Your task to perform on an android device: add a contact Image 0: 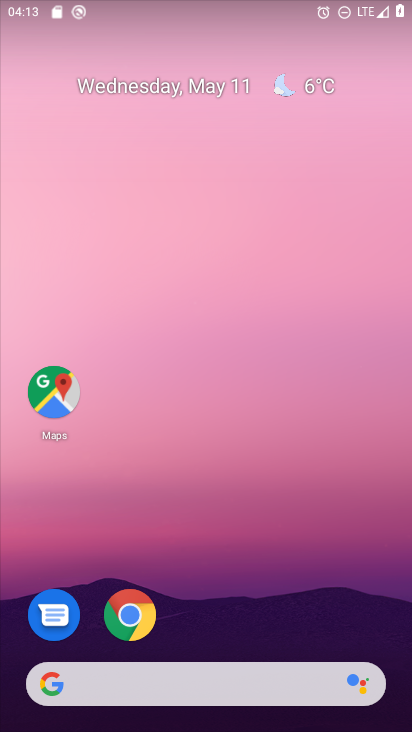
Step 0: drag from (244, 450) to (273, 192)
Your task to perform on an android device: add a contact Image 1: 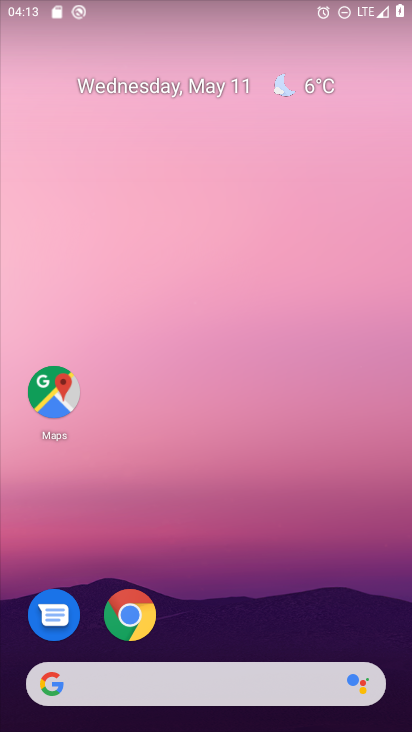
Step 1: drag from (217, 610) to (217, 265)
Your task to perform on an android device: add a contact Image 2: 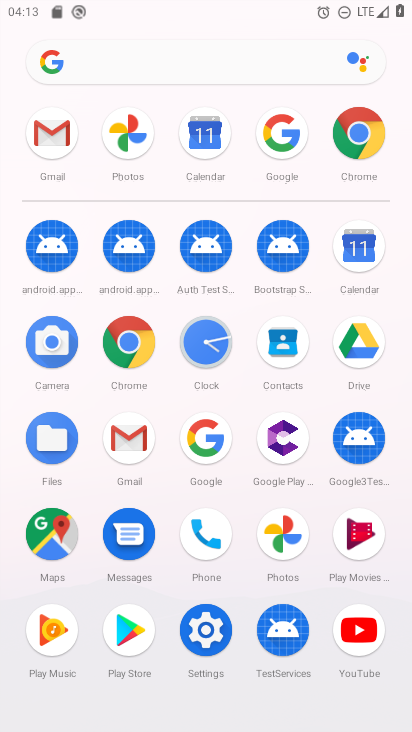
Step 2: click (284, 344)
Your task to perform on an android device: add a contact Image 3: 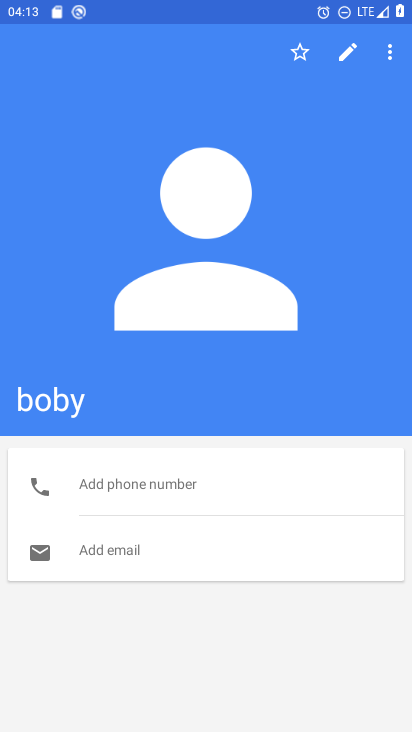
Step 3: press back button
Your task to perform on an android device: add a contact Image 4: 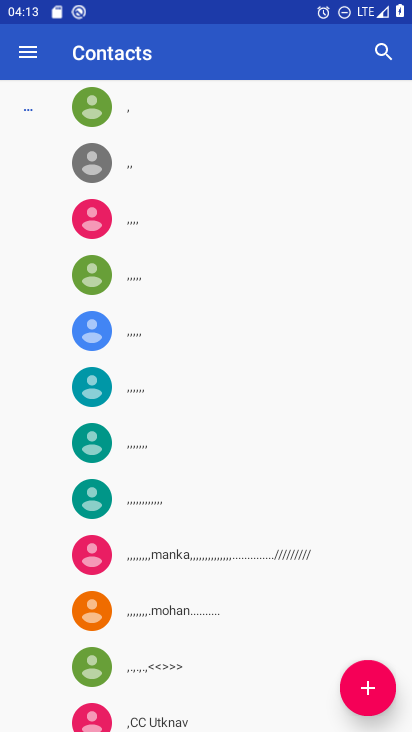
Step 4: click (362, 702)
Your task to perform on an android device: add a contact Image 5: 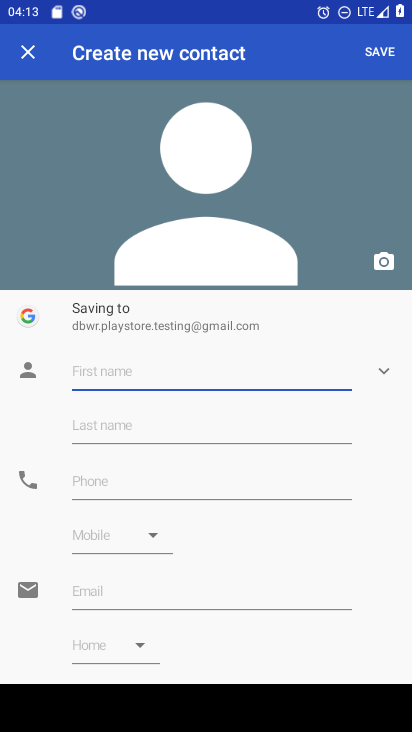
Step 5: click (151, 369)
Your task to perform on an android device: add a contact Image 6: 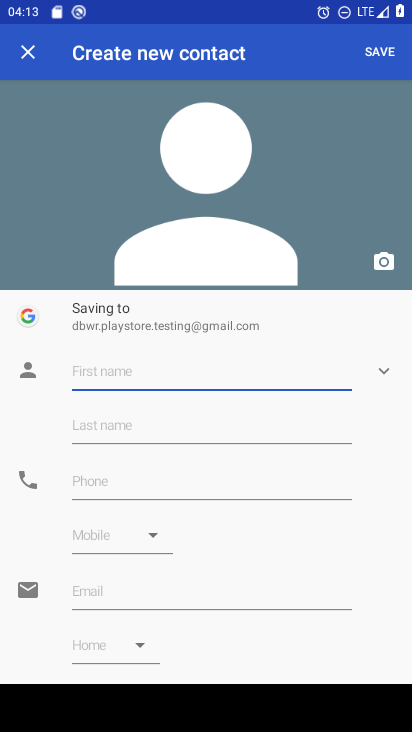
Step 6: type "kokl"
Your task to perform on an android device: add a contact Image 7: 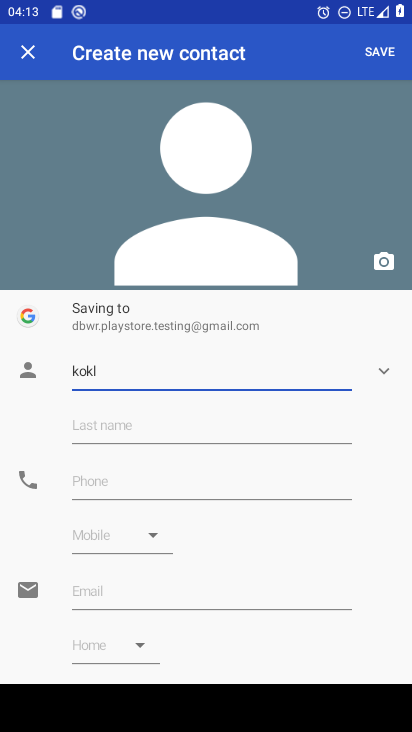
Step 7: click (375, 53)
Your task to perform on an android device: add a contact Image 8: 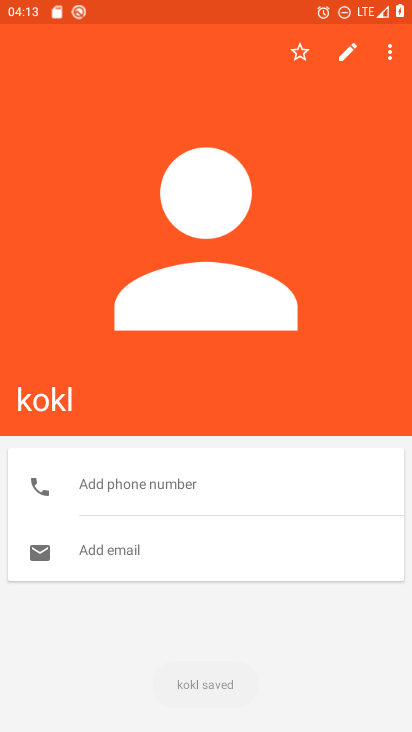
Step 8: task complete